Your task to perform on an android device: Search for sushi restaurants on Maps Image 0: 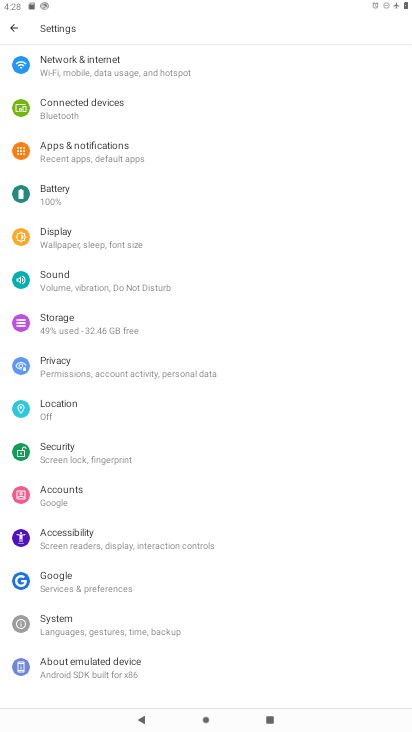
Step 0: press home button
Your task to perform on an android device: Search for sushi restaurants on Maps Image 1: 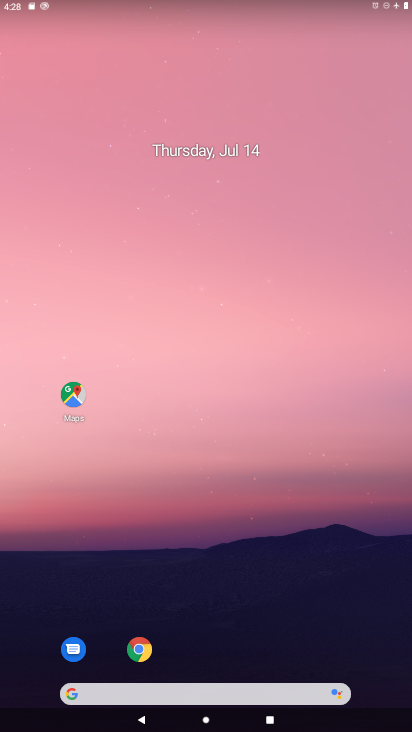
Step 1: click (67, 391)
Your task to perform on an android device: Search for sushi restaurants on Maps Image 2: 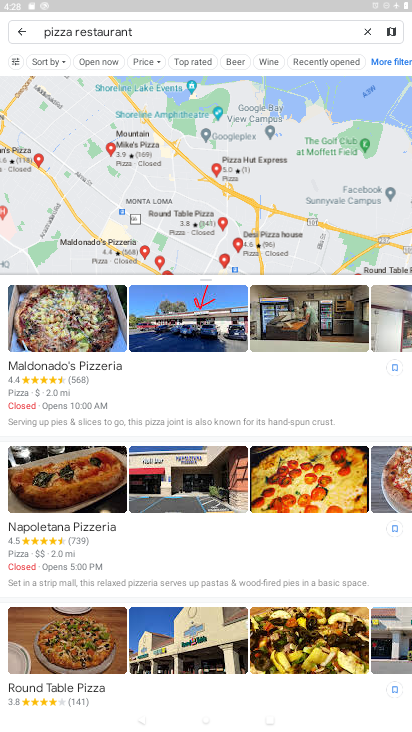
Step 2: click (363, 35)
Your task to perform on an android device: Search for sushi restaurants on Maps Image 3: 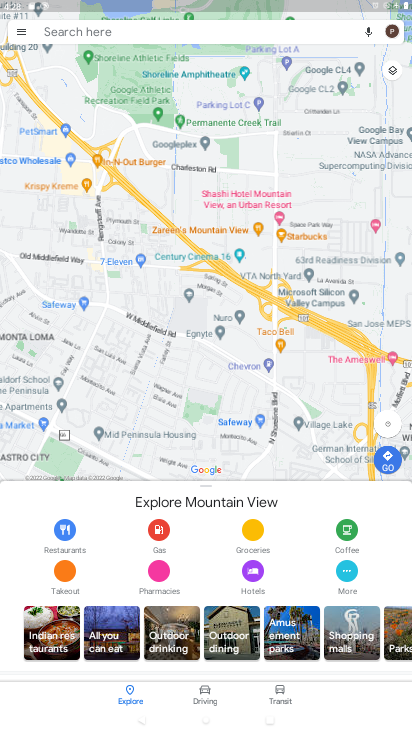
Step 3: click (184, 21)
Your task to perform on an android device: Search for sushi restaurants on Maps Image 4: 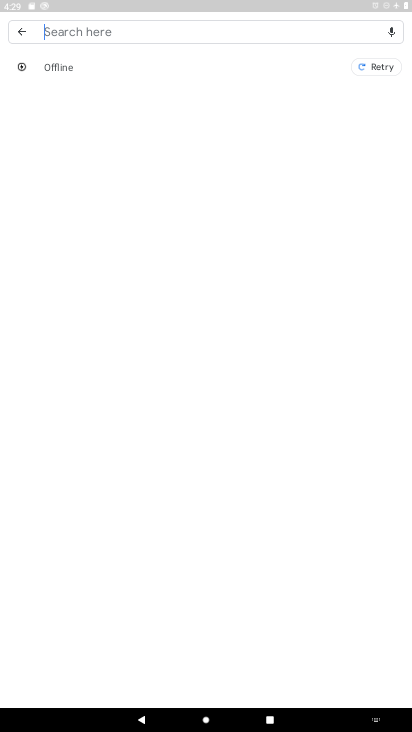
Step 4: type "sushi restaurants"
Your task to perform on an android device: Search for sushi restaurants on Maps Image 5: 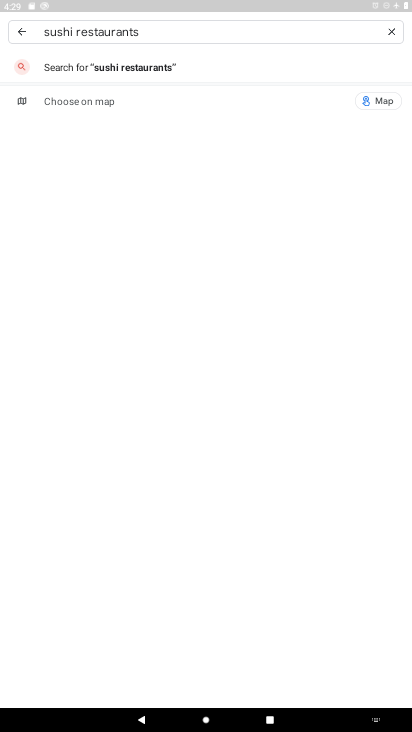
Step 5: click (149, 68)
Your task to perform on an android device: Search for sushi restaurants on Maps Image 6: 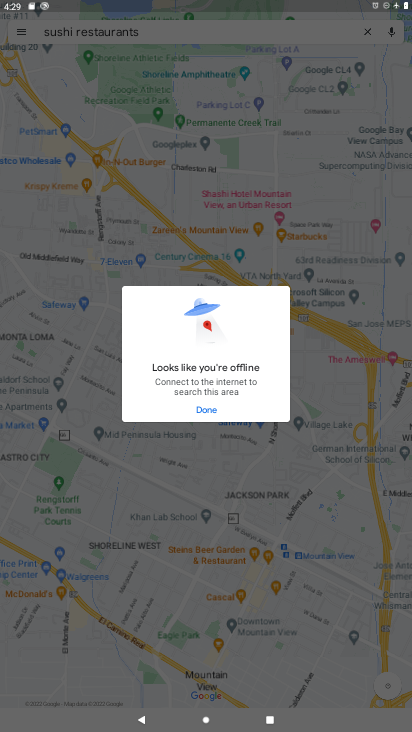
Step 6: task complete